Your task to perform on an android device: Open Google Maps Image 0: 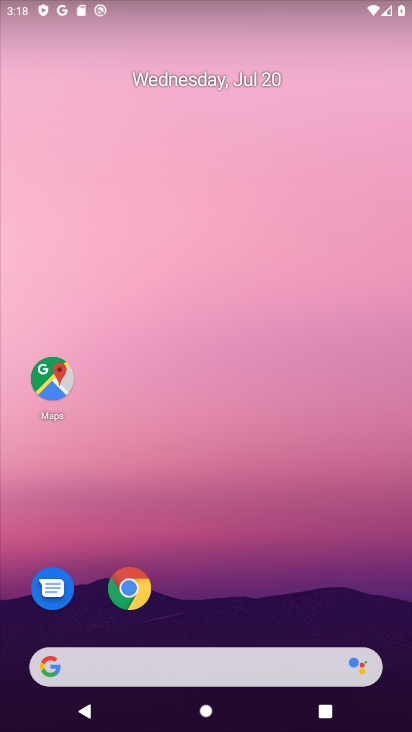
Step 0: click (44, 364)
Your task to perform on an android device: Open Google Maps Image 1: 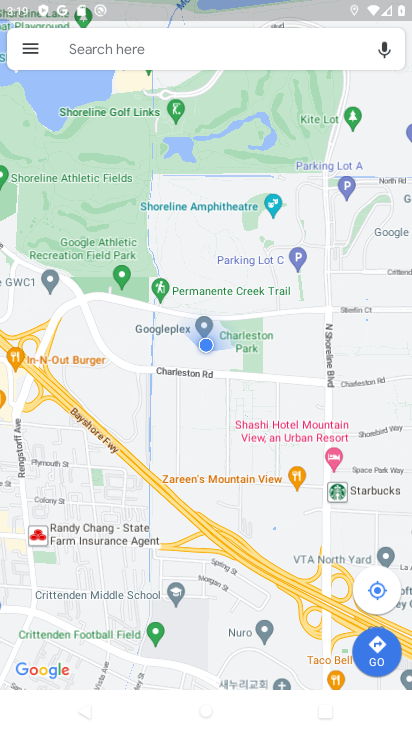
Step 1: task complete